Your task to perform on an android device: set default search engine in the chrome app Image 0: 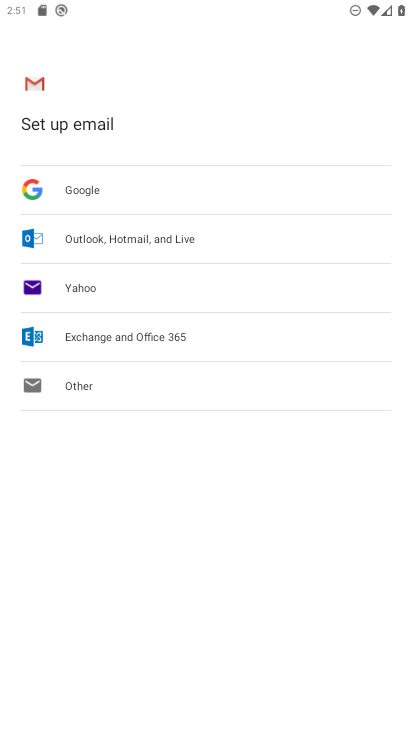
Step 0: press home button
Your task to perform on an android device: set default search engine in the chrome app Image 1: 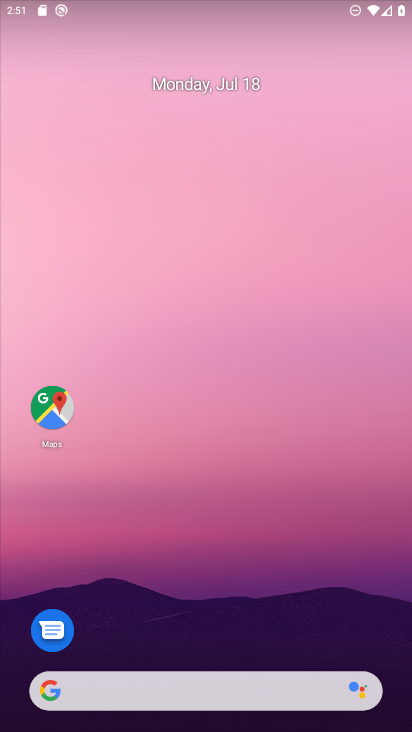
Step 1: drag from (312, 623) to (324, 36)
Your task to perform on an android device: set default search engine in the chrome app Image 2: 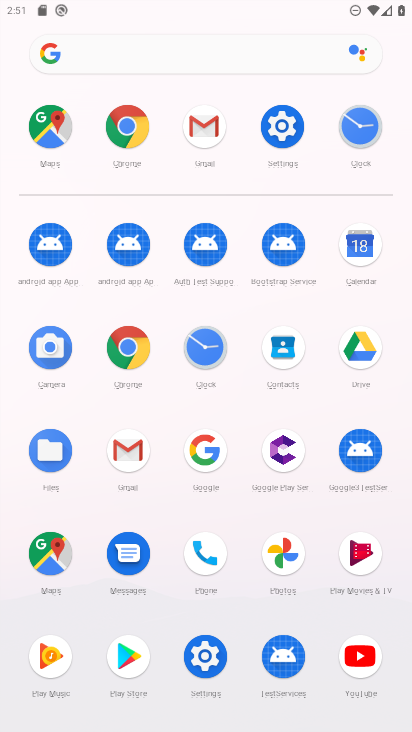
Step 2: click (125, 353)
Your task to perform on an android device: set default search engine in the chrome app Image 3: 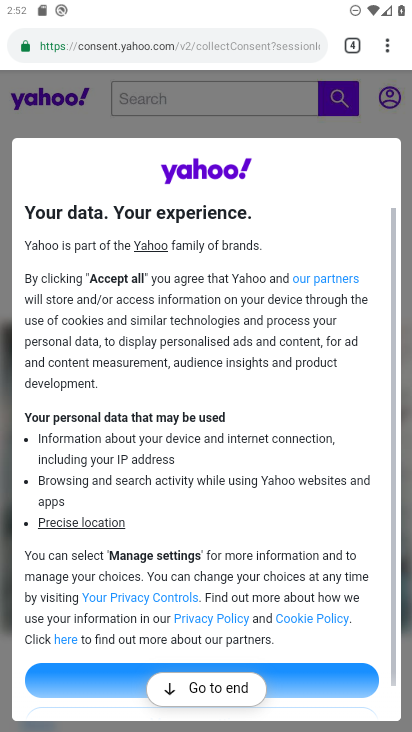
Step 3: press home button
Your task to perform on an android device: set default search engine in the chrome app Image 4: 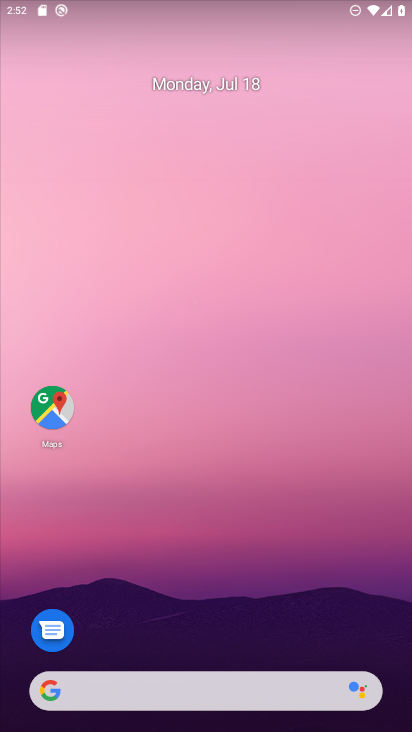
Step 4: drag from (275, 611) to (292, 50)
Your task to perform on an android device: set default search engine in the chrome app Image 5: 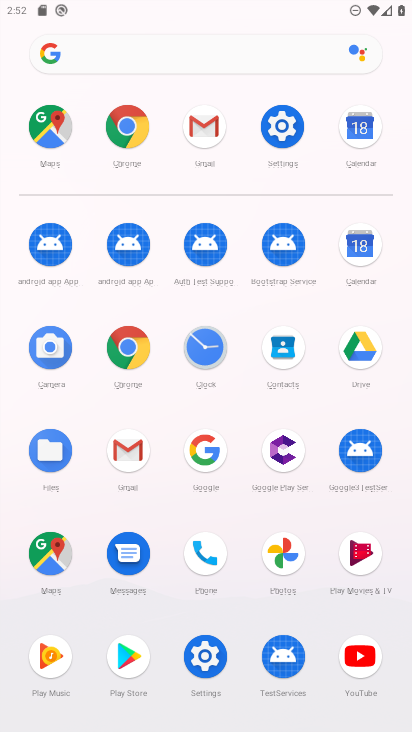
Step 5: click (142, 347)
Your task to perform on an android device: set default search engine in the chrome app Image 6: 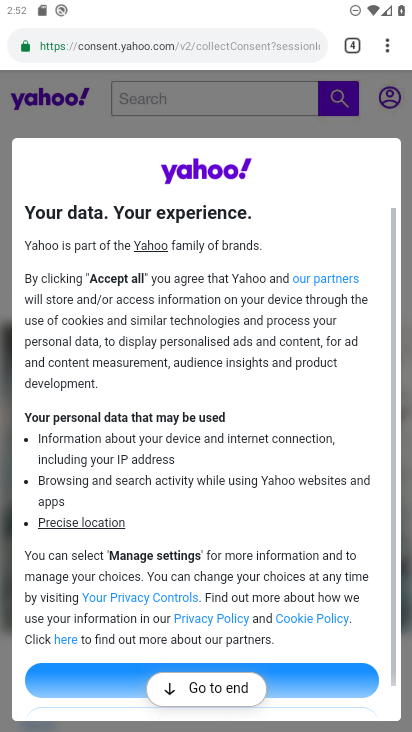
Step 6: drag from (380, 41) to (236, 564)
Your task to perform on an android device: set default search engine in the chrome app Image 7: 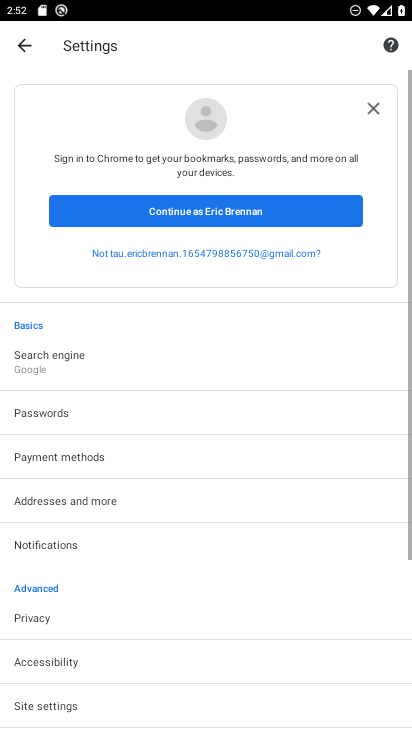
Step 7: click (77, 361)
Your task to perform on an android device: set default search engine in the chrome app Image 8: 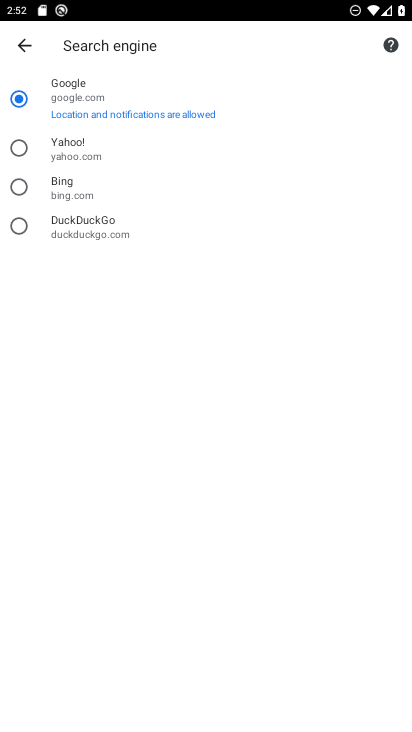
Step 8: task complete